Your task to perform on an android device: turn off data saver in the chrome app Image 0: 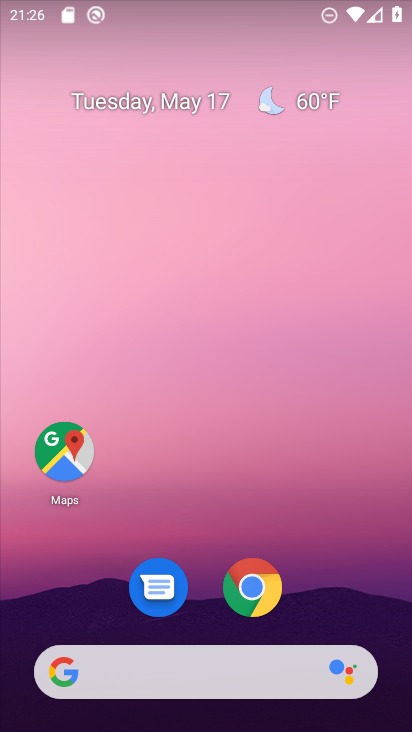
Step 0: drag from (288, 523) to (230, 190)
Your task to perform on an android device: turn off data saver in the chrome app Image 1: 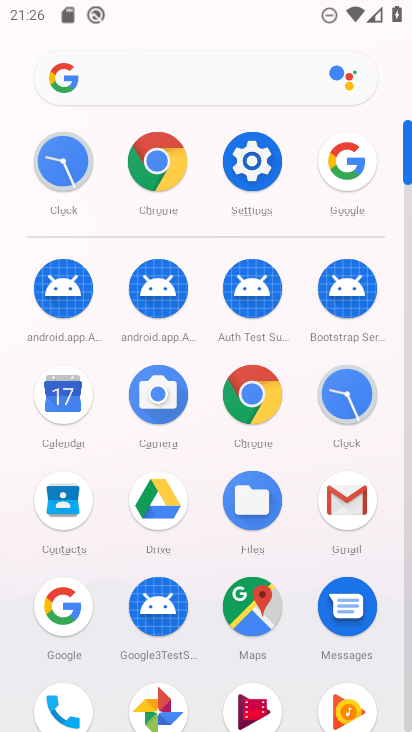
Step 1: click (238, 415)
Your task to perform on an android device: turn off data saver in the chrome app Image 2: 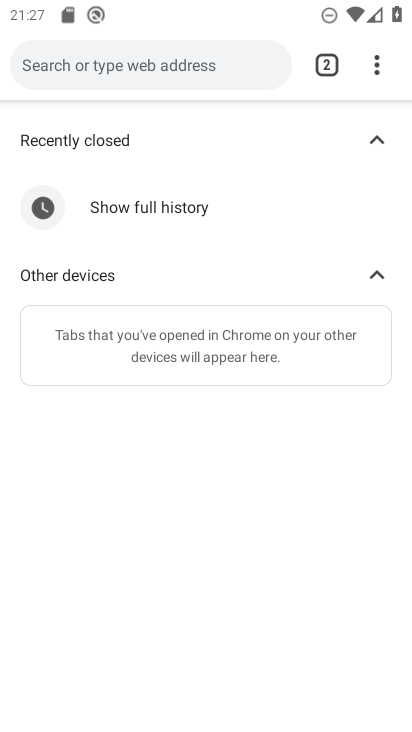
Step 2: click (378, 67)
Your task to perform on an android device: turn off data saver in the chrome app Image 3: 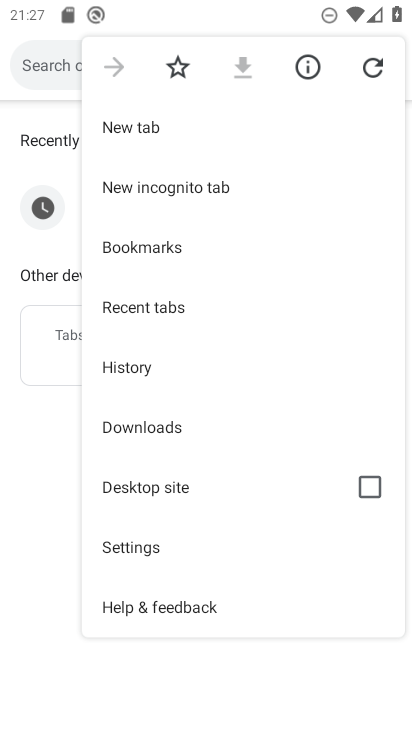
Step 3: click (171, 564)
Your task to perform on an android device: turn off data saver in the chrome app Image 4: 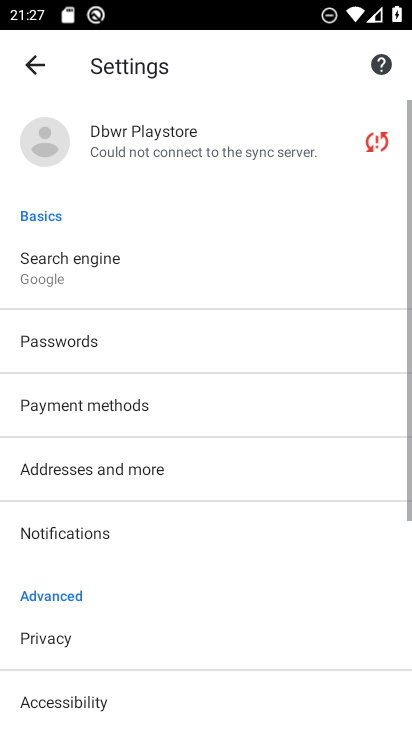
Step 4: drag from (147, 529) to (11, 17)
Your task to perform on an android device: turn off data saver in the chrome app Image 5: 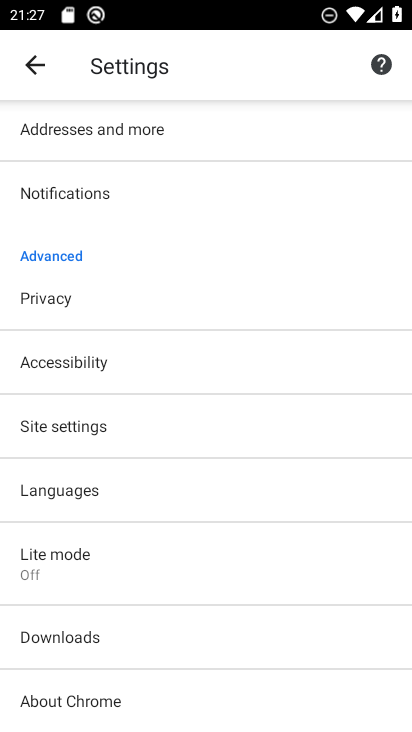
Step 5: click (119, 586)
Your task to perform on an android device: turn off data saver in the chrome app Image 6: 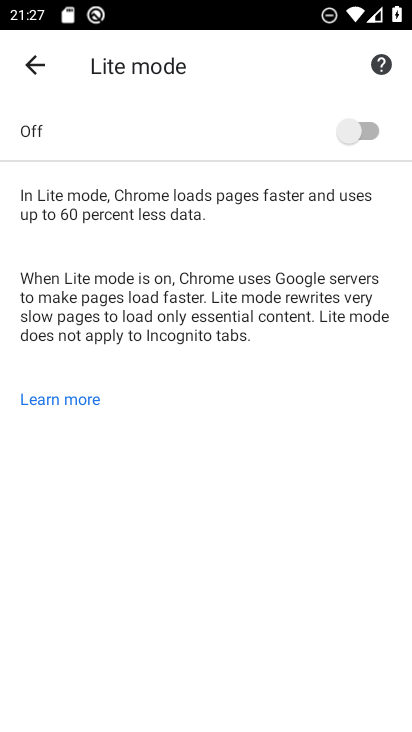
Step 6: task complete